Your task to perform on an android device: turn on data saver in the chrome app Image 0: 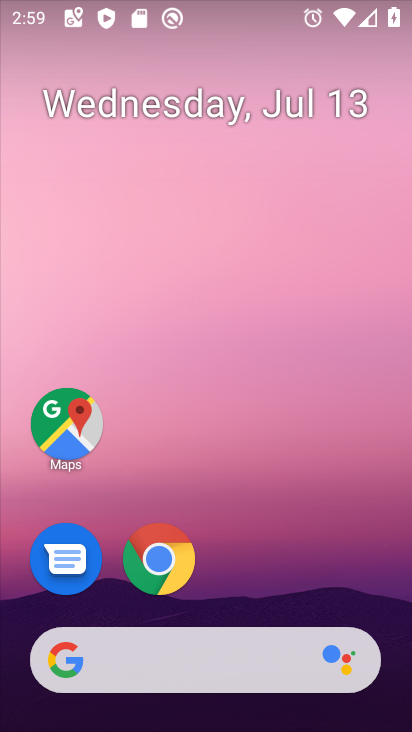
Step 0: drag from (357, 594) to (355, 205)
Your task to perform on an android device: turn on data saver in the chrome app Image 1: 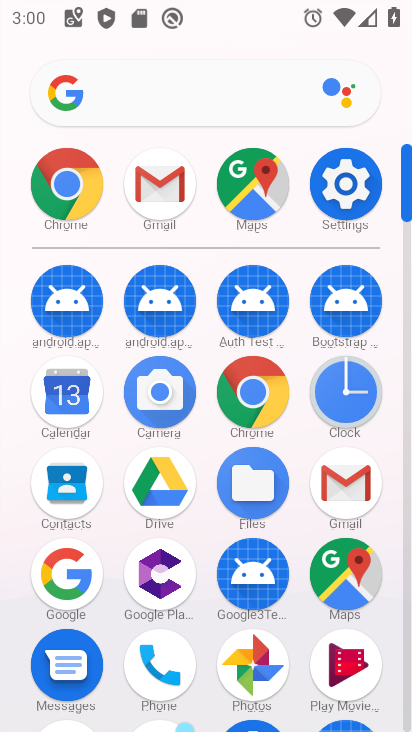
Step 1: click (264, 390)
Your task to perform on an android device: turn on data saver in the chrome app Image 2: 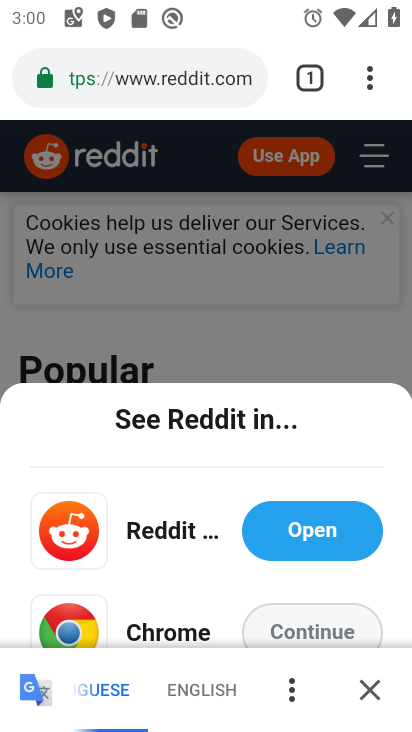
Step 2: click (368, 88)
Your task to perform on an android device: turn on data saver in the chrome app Image 3: 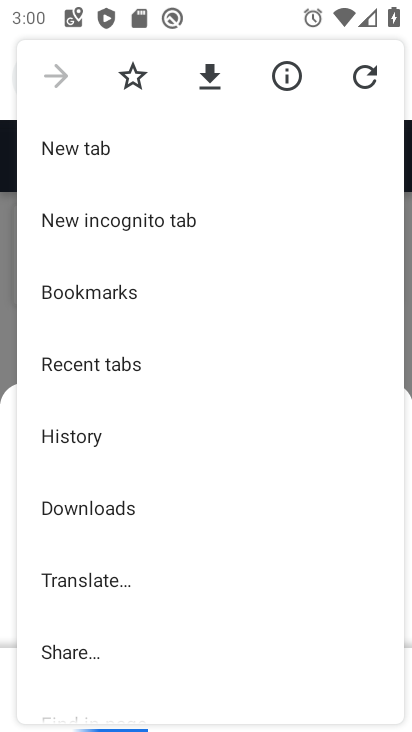
Step 3: drag from (291, 487) to (272, 309)
Your task to perform on an android device: turn on data saver in the chrome app Image 4: 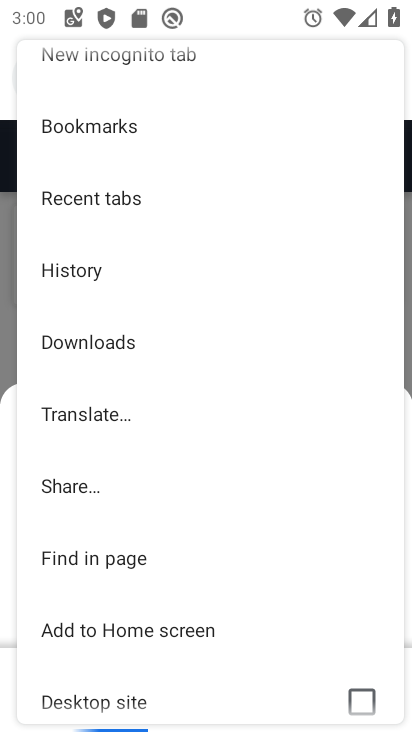
Step 4: drag from (275, 484) to (270, 354)
Your task to perform on an android device: turn on data saver in the chrome app Image 5: 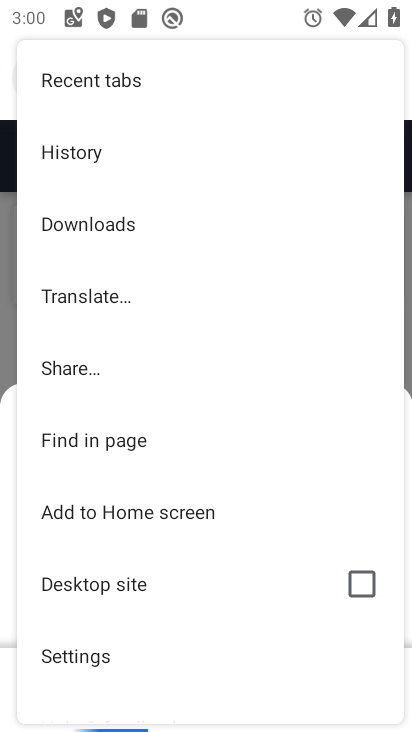
Step 5: drag from (261, 566) to (233, 354)
Your task to perform on an android device: turn on data saver in the chrome app Image 6: 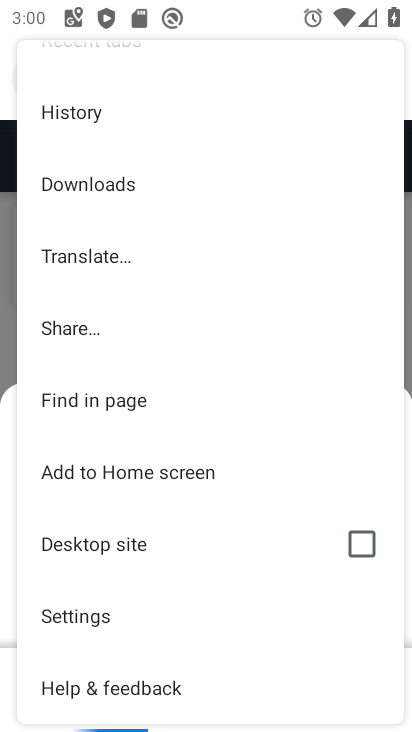
Step 6: click (104, 622)
Your task to perform on an android device: turn on data saver in the chrome app Image 7: 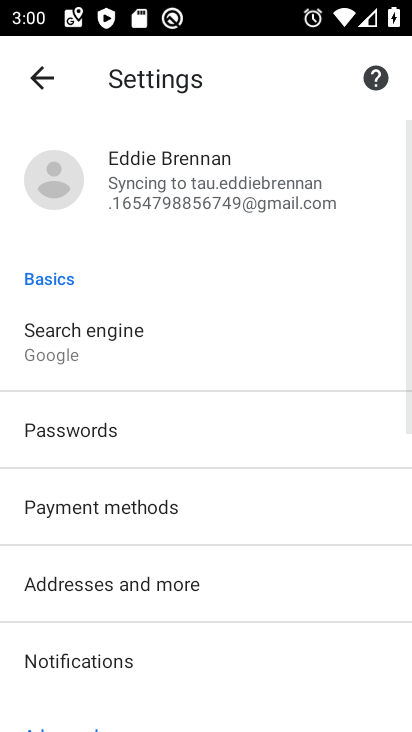
Step 7: drag from (255, 580) to (252, 448)
Your task to perform on an android device: turn on data saver in the chrome app Image 8: 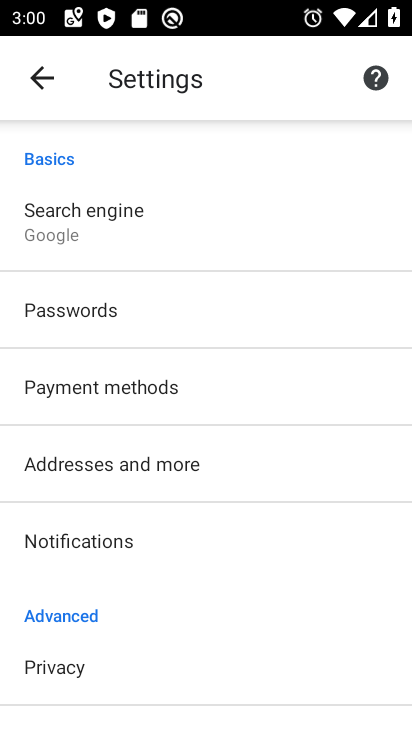
Step 8: drag from (283, 575) to (285, 430)
Your task to perform on an android device: turn on data saver in the chrome app Image 9: 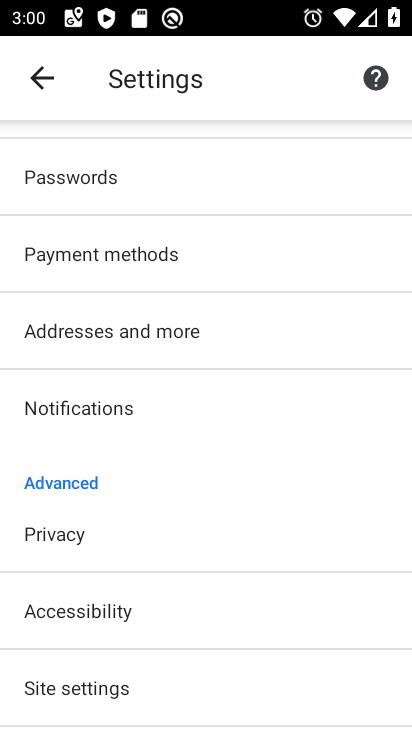
Step 9: drag from (280, 592) to (281, 475)
Your task to perform on an android device: turn on data saver in the chrome app Image 10: 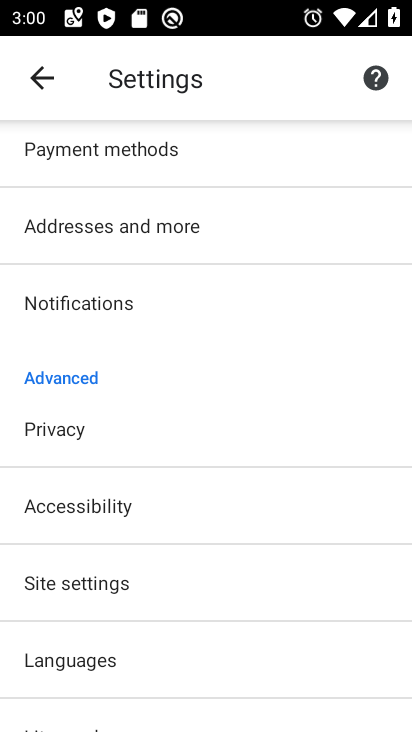
Step 10: drag from (277, 599) to (273, 321)
Your task to perform on an android device: turn on data saver in the chrome app Image 11: 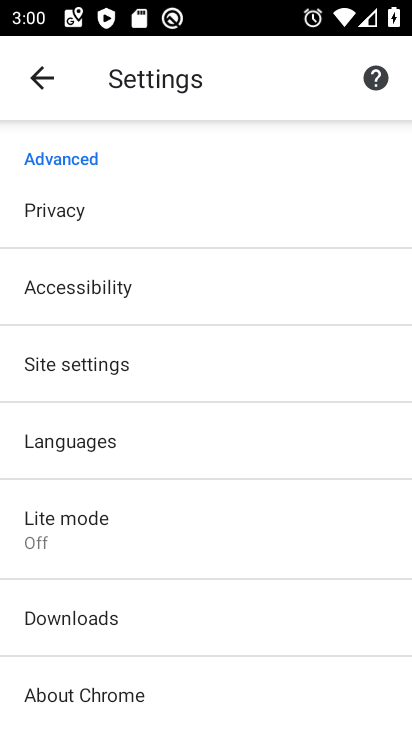
Step 11: click (261, 535)
Your task to perform on an android device: turn on data saver in the chrome app Image 12: 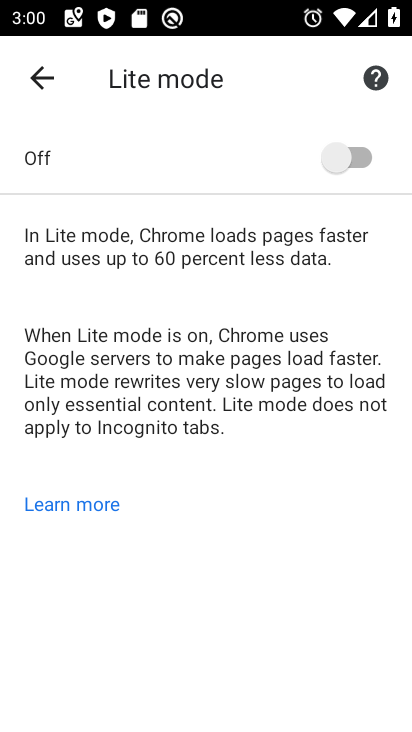
Step 12: click (338, 155)
Your task to perform on an android device: turn on data saver in the chrome app Image 13: 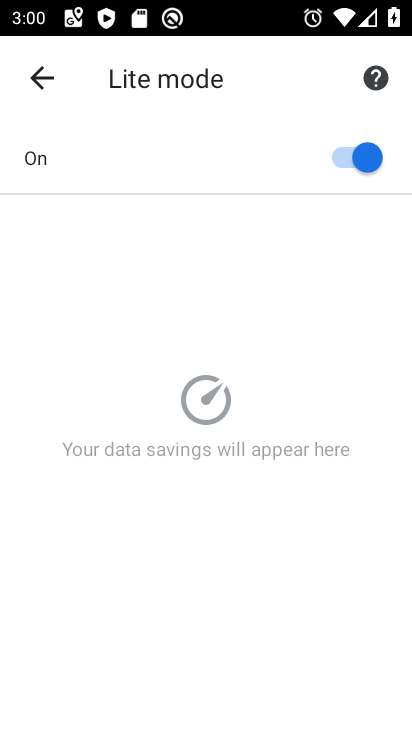
Step 13: task complete